Your task to perform on an android device: check battery use Image 0: 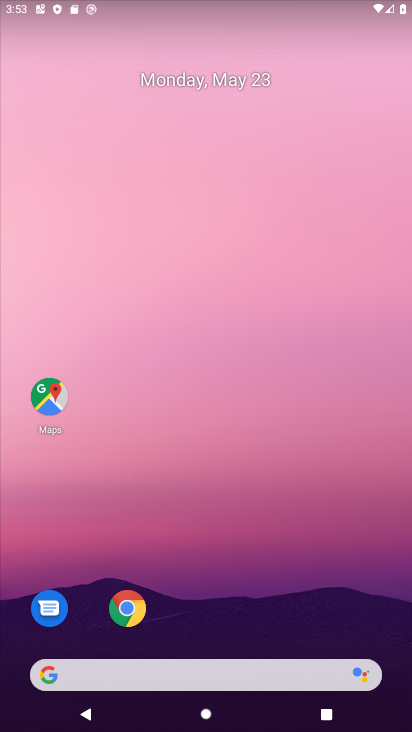
Step 0: drag from (257, 604) to (154, 119)
Your task to perform on an android device: check battery use Image 1: 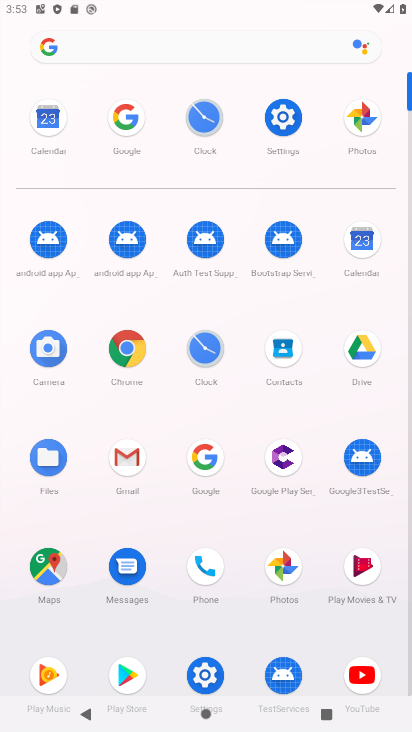
Step 1: click (285, 117)
Your task to perform on an android device: check battery use Image 2: 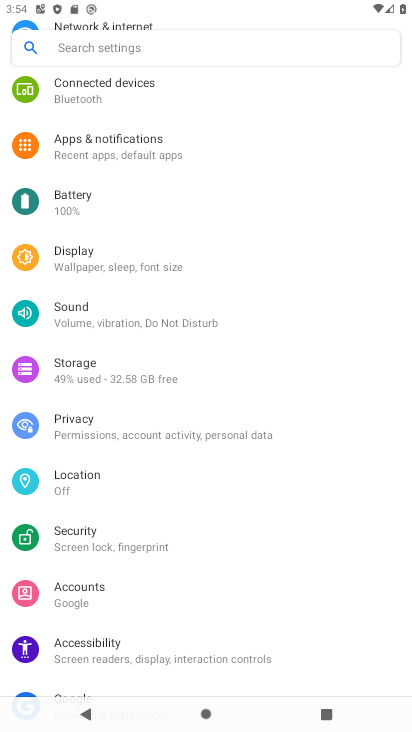
Step 2: click (76, 192)
Your task to perform on an android device: check battery use Image 3: 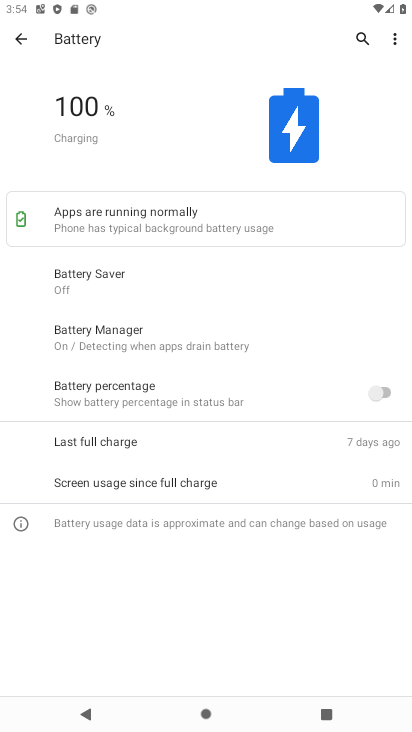
Step 3: click (396, 41)
Your task to perform on an android device: check battery use Image 4: 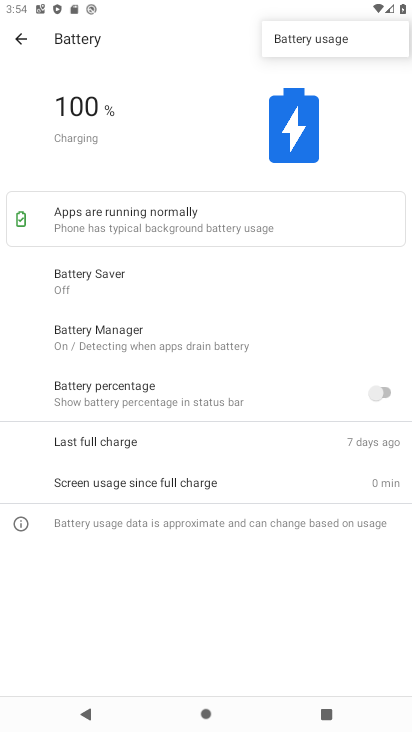
Step 4: click (311, 43)
Your task to perform on an android device: check battery use Image 5: 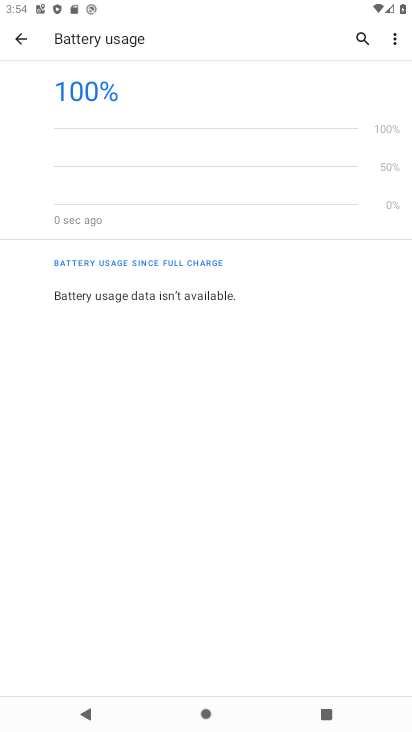
Step 5: task complete